Your task to perform on an android device: Open network settings Image 0: 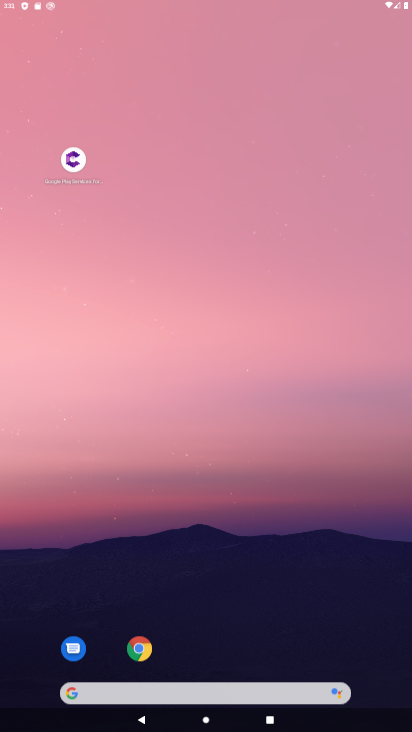
Step 0: click (361, 65)
Your task to perform on an android device: Open network settings Image 1: 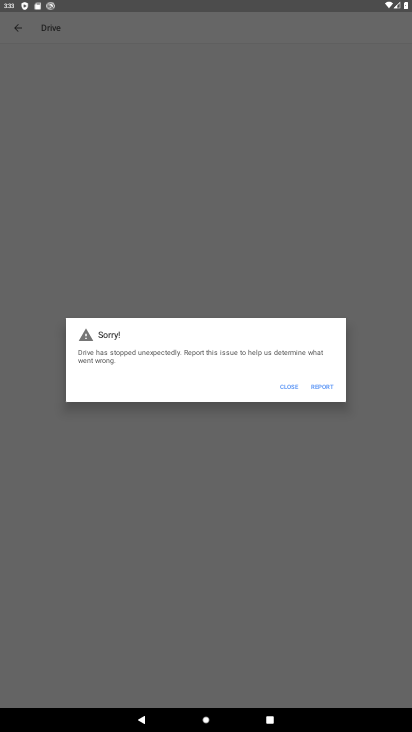
Step 1: press home button
Your task to perform on an android device: Open network settings Image 2: 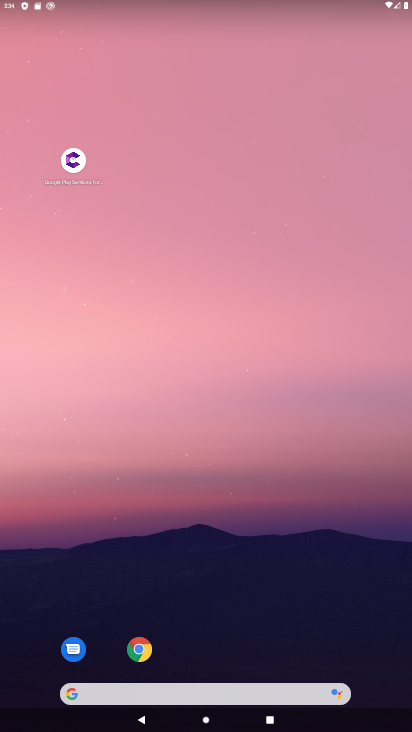
Step 2: drag from (141, 663) to (409, 6)
Your task to perform on an android device: Open network settings Image 3: 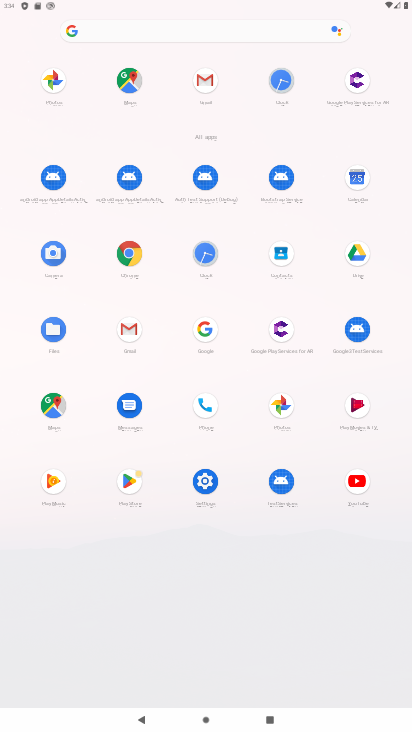
Step 3: click (191, 470)
Your task to perform on an android device: Open network settings Image 4: 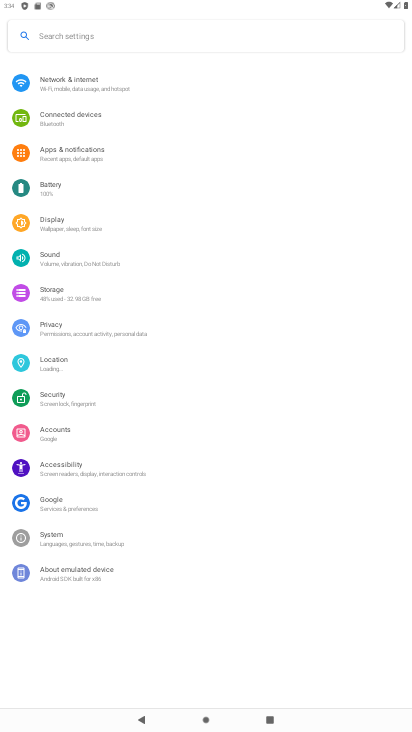
Step 4: click (209, 491)
Your task to perform on an android device: Open network settings Image 5: 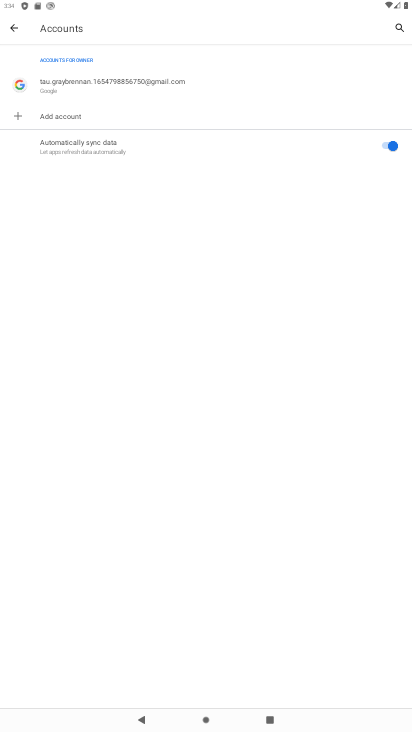
Step 5: click (7, 28)
Your task to perform on an android device: Open network settings Image 6: 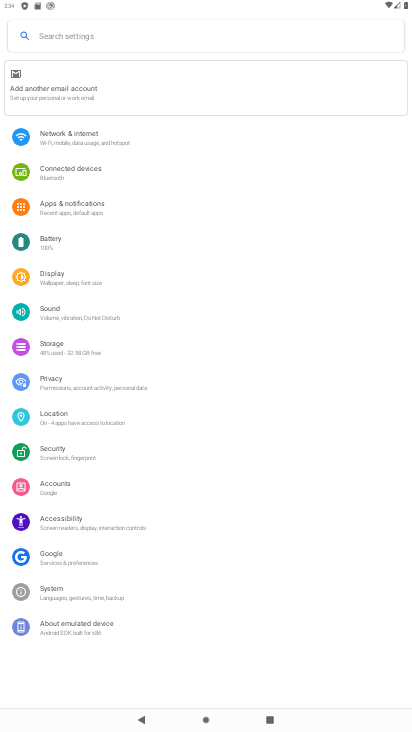
Step 6: click (107, 138)
Your task to perform on an android device: Open network settings Image 7: 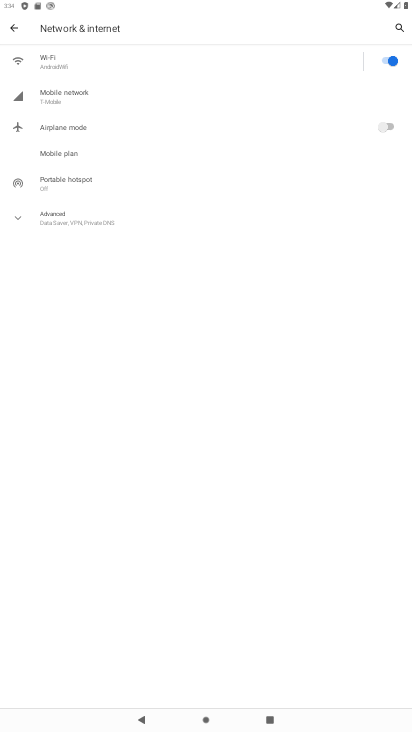
Step 7: click (107, 98)
Your task to perform on an android device: Open network settings Image 8: 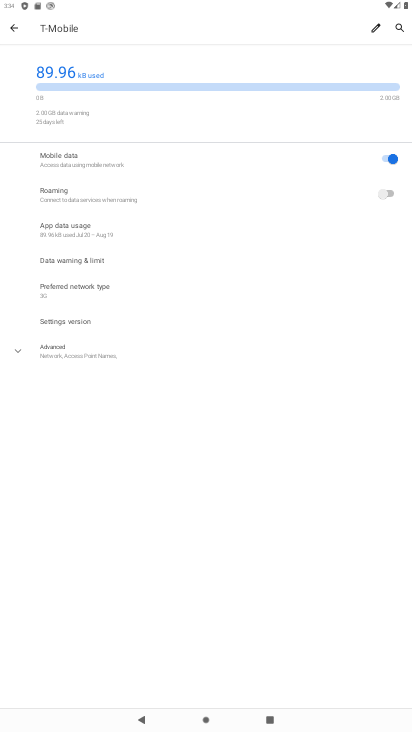
Step 8: task complete